Your task to perform on an android device: turn off notifications settings in the gmail app Image 0: 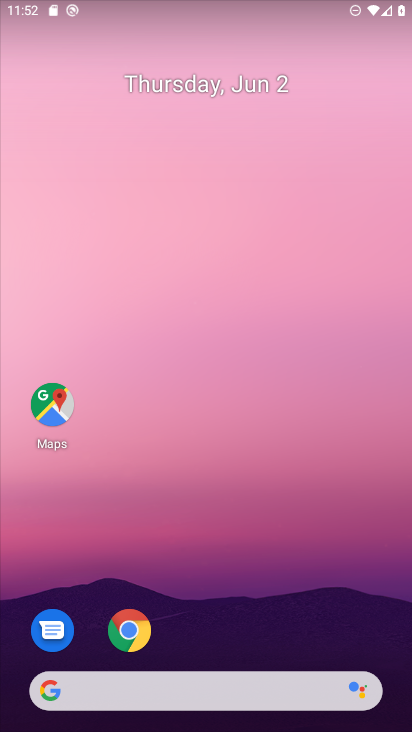
Step 0: drag from (285, 633) to (235, 208)
Your task to perform on an android device: turn off notifications settings in the gmail app Image 1: 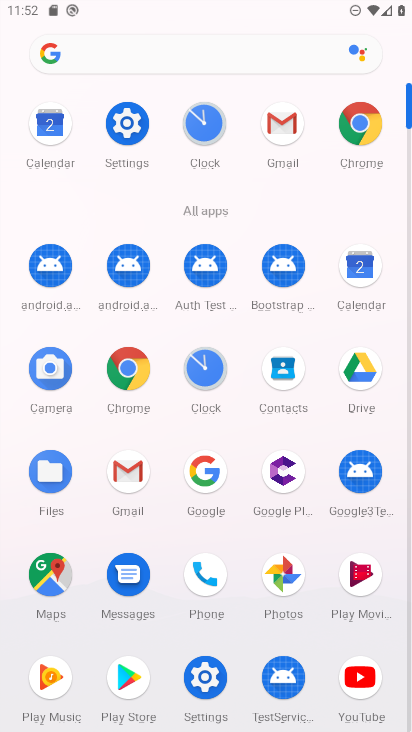
Step 1: click (125, 476)
Your task to perform on an android device: turn off notifications settings in the gmail app Image 2: 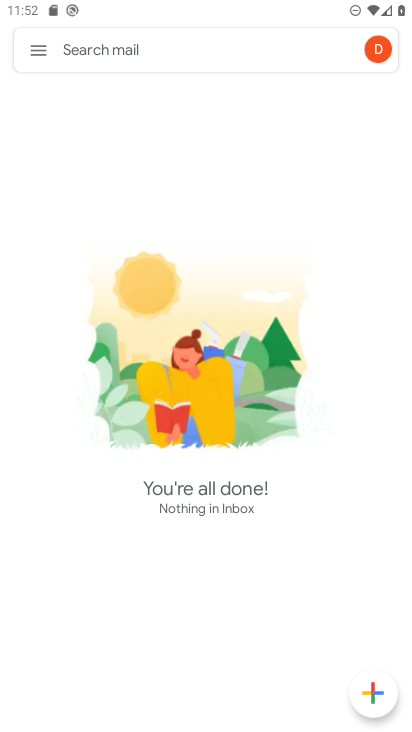
Step 2: click (41, 45)
Your task to perform on an android device: turn off notifications settings in the gmail app Image 3: 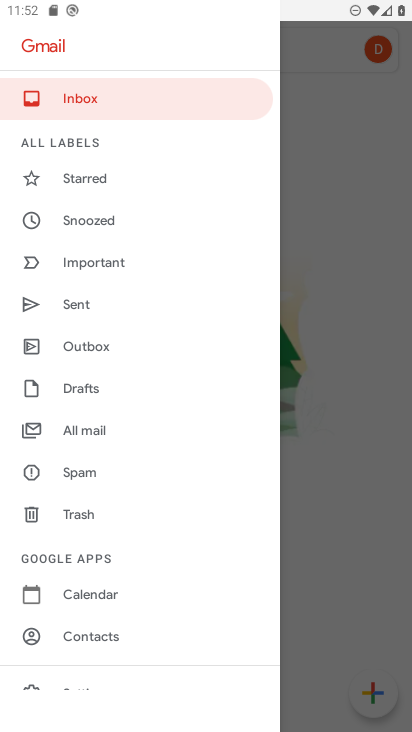
Step 3: drag from (141, 647) to (125, 315)
Your task to perform on an android device: turn off notifications settings in the gmail app Image 4: 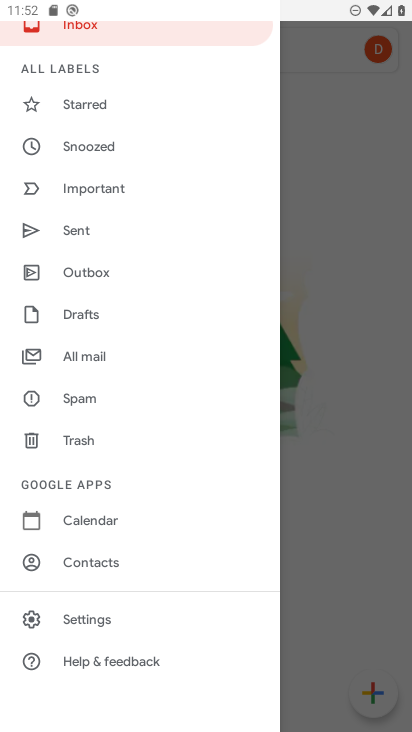
Step 4: click (126, 612)
Your task to perform on an android device: turn off notifications settings in the gmail app Image 5: 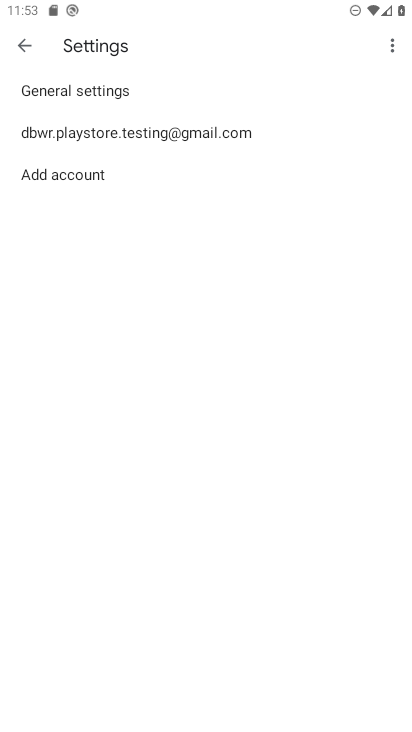
Step 5: click (205, 146)
Your task to perform on an android device: turn off notifications settings in the gmail app Image 6: 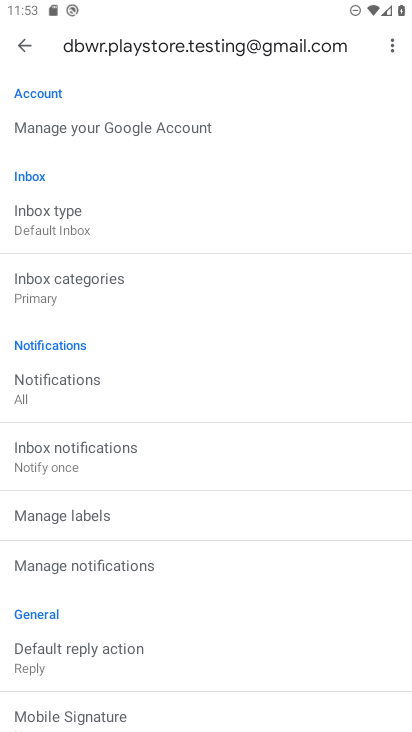
Step 6: click (180, 559)
Your task to perform on an android device: turn off notifications settings in the gmail app Image 7: 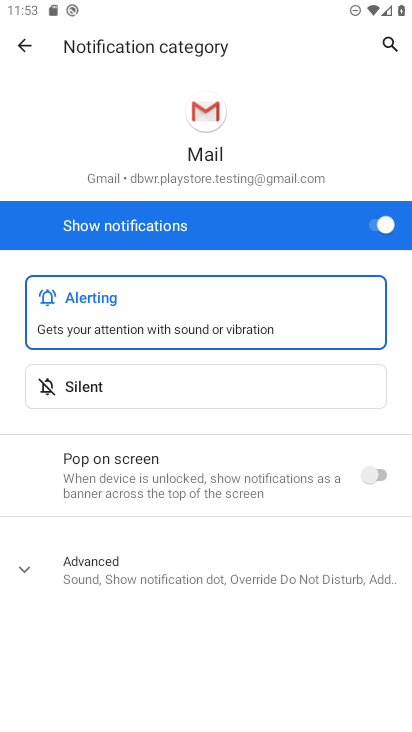
Step 7: task complete